Your task to perform on an android device: change the clock display to digital Image 0: 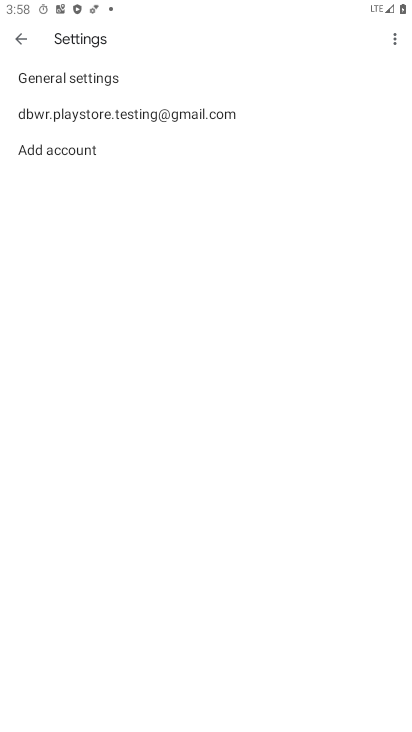
Step 0: press home button
Your task to perform on an android device: change the clock display to digital Image 1: 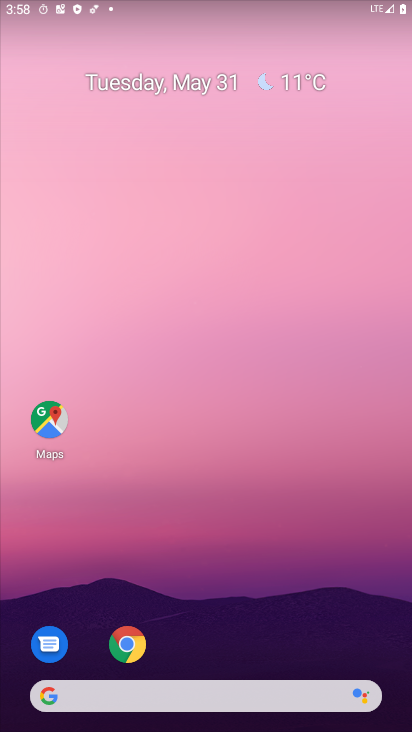
Step 1: drag from (265, 622) to (281, 49)
Your task to perform on an android device: change the clock display to digital Image 2: 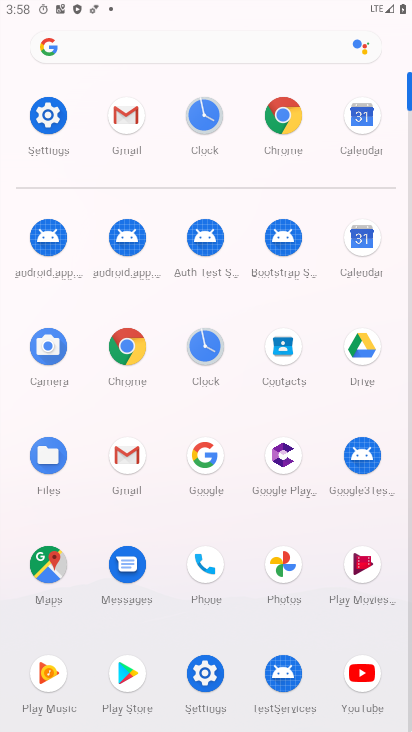
Step 2: click (203, 352)
Your task to perform on an android device: change the clock display to digital Image 3: 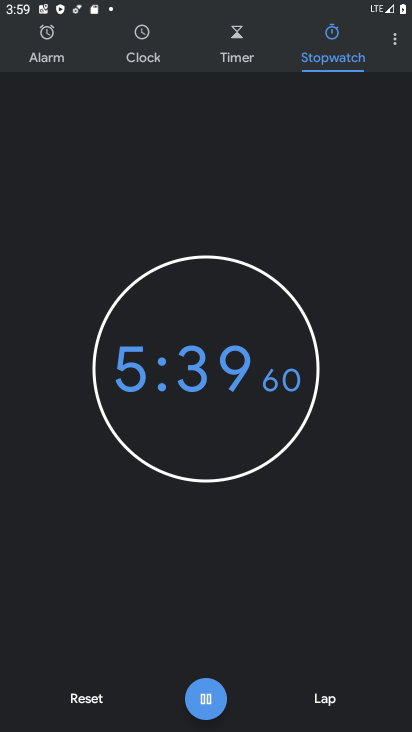
Step 3: click (393, 38)
Your task to perform on an android device: change the clock display to digital Image 4: 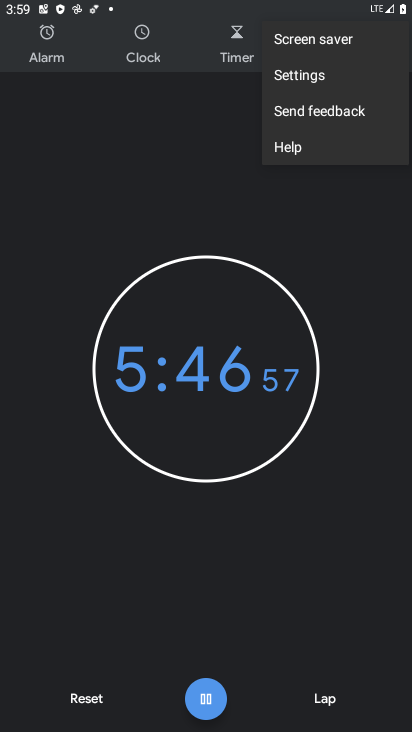
Step 4: click (294, 73)
Your task to perform on an android device: change the clock display to digital Image 5: 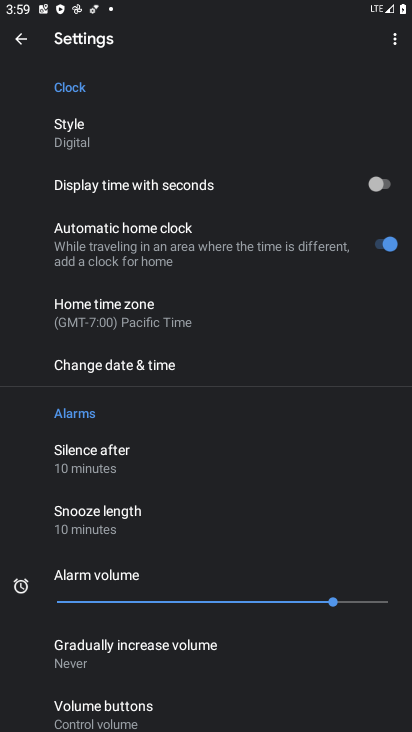
Step 5: click (90, 136)
Your task to perform on an android device: change the clock display to digital Image 6: 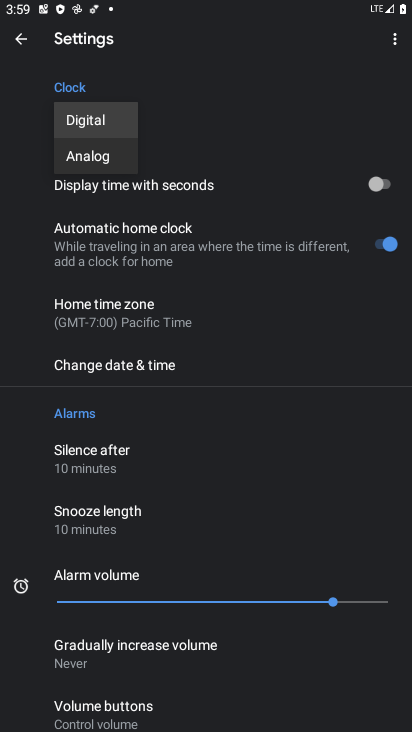
Step 6: click (119, 158)
Your task to perform on an android device: change the clock display to digital Image 7: 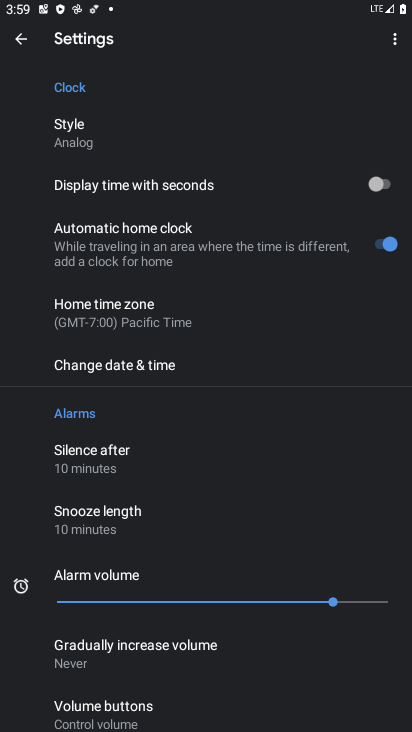
Step 7: task complete